Your task to perform on an android device: turn off sleep mode Image 0: 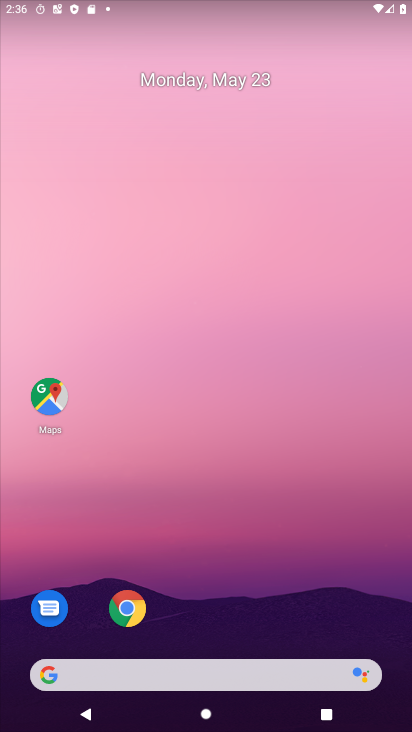
Step 0: drag from (225, 642) to (221, 0)
Your task to perform on an android device: turn off sleep mode Image 1: 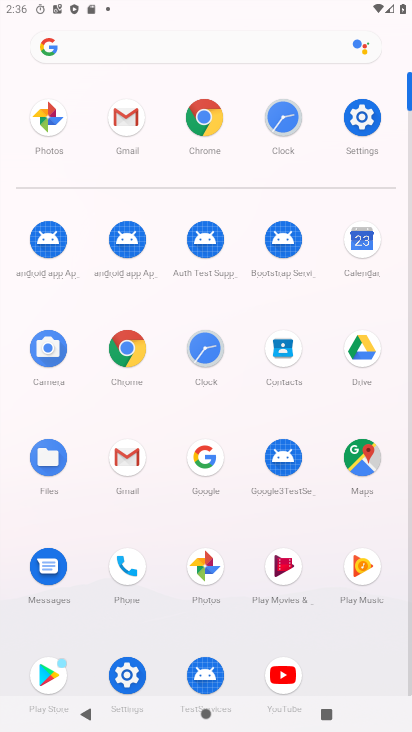
Step 1: click (363, 110)
Your task to perform on an android device: turn off sleep mode Image 2: 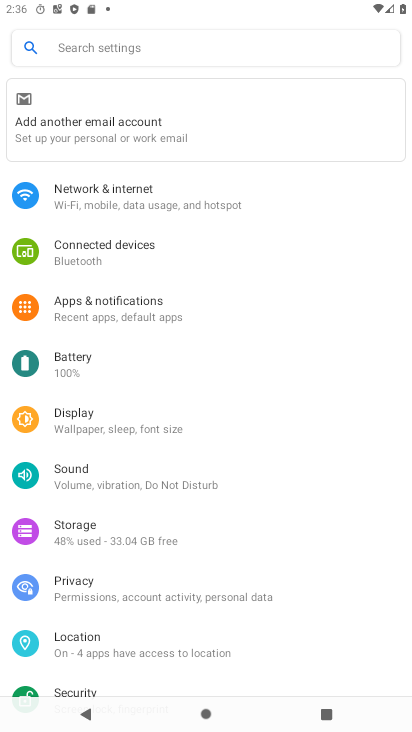
Step 2: click (197, 42)
Your task to perform on an android device: turn off sleep mode Image 3: 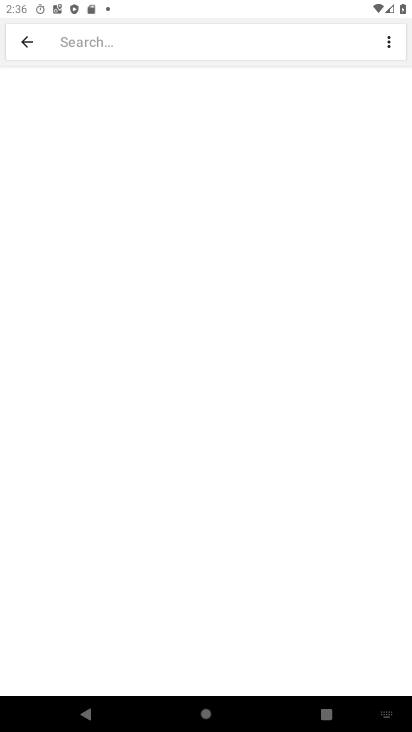
Step 3: type "sleep mode"
Your task to perform on an android device: turn off sleep mode Image 4: 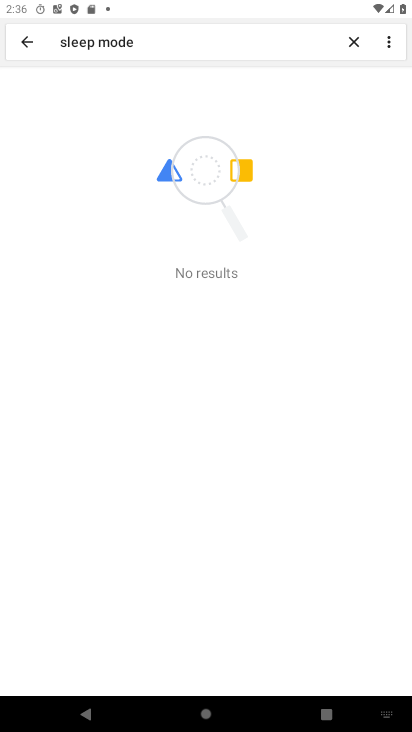
Step 4: task complete